Your task to perform on an android device: turn on the 24-hour format for clock Image 0: 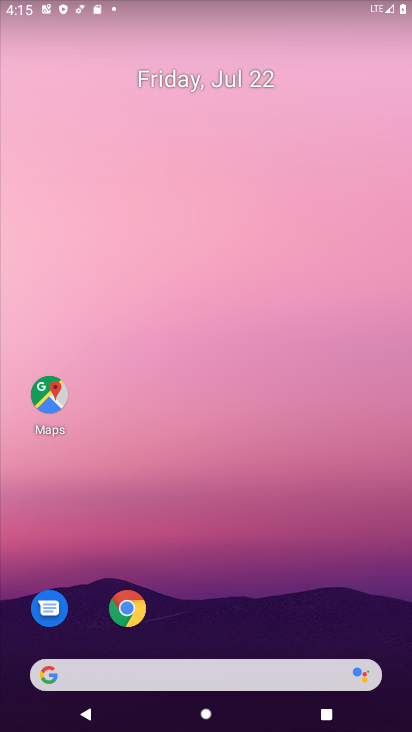
Step 0: drag from (227, 715) to (234, 356)
Your task to perform on an android device: turn on the 24-hour format for clock Image 1: 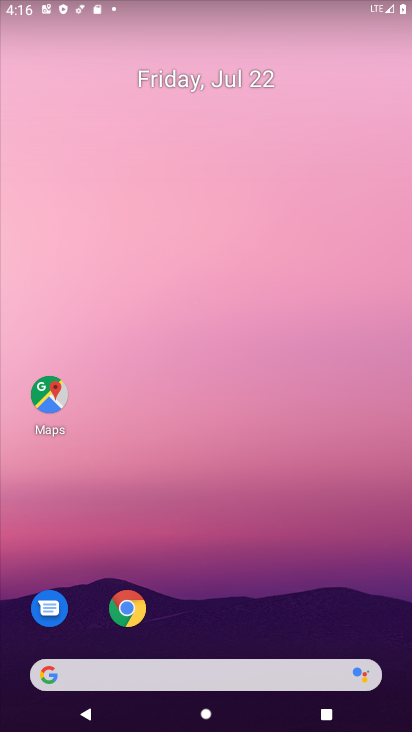
Step 1: drag from (240, 679) to (234, 47)
Your task to perform on an android device: turn on the 24-hour format for clock Image 2: 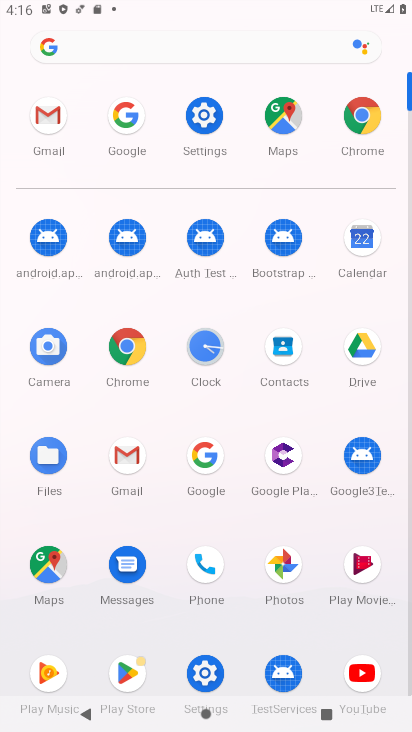
Step 2: click (204, 344)
Your task to perform on an android device: turn on the 24-hour format for clock Image 3: 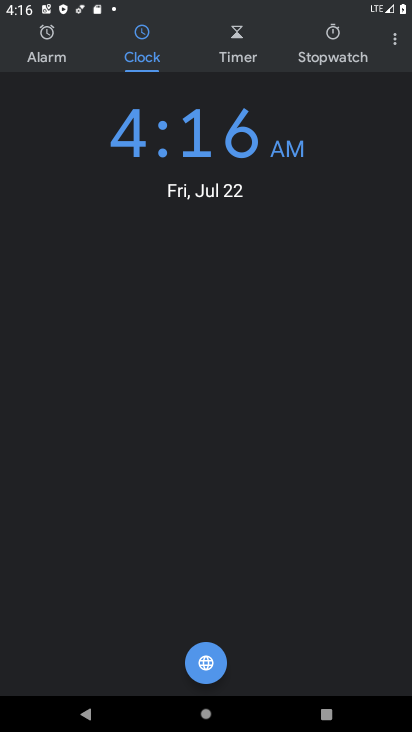
Step 3: click (395, 39)
Your task to perform on an android device: turn on the 24-hour format for clock Image 4: 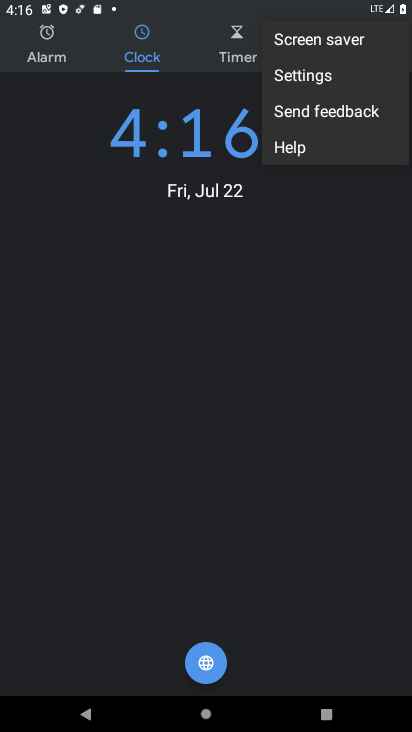
Step 4: click (293, 81)
Your task to perform on an android device: turn on the 24-hour format for clock Image 5: 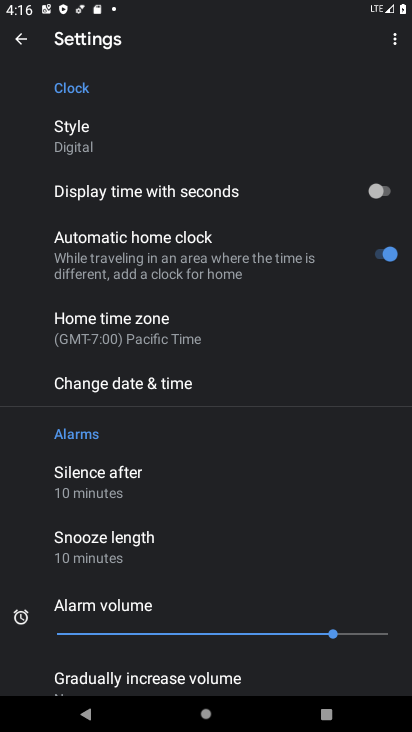
Step 5: click (139, 383)
Your task to perform on an android device: turn on the 24-hour format for clock Image 6: 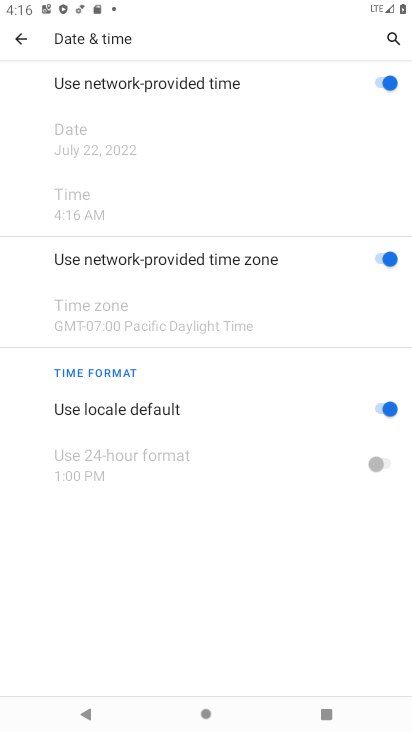
Step 6: click (379, 413)
Your task to perform on an android device: turn on the 24-hour format for clock Image 7: 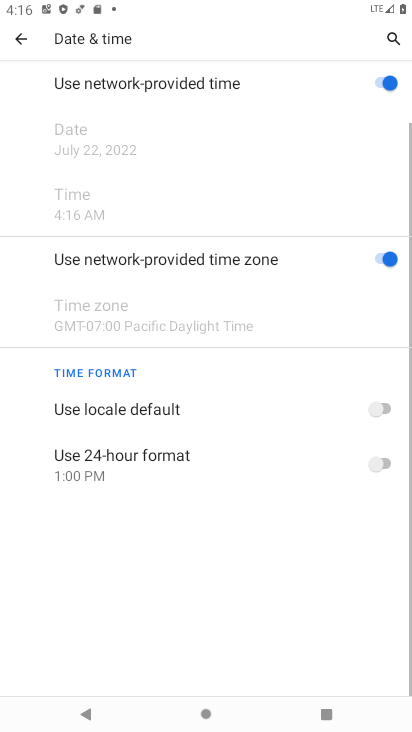
Step 7: click (383, 461)
Your task to perform on an android device: turn on the 24-hour format for clock Image 8: 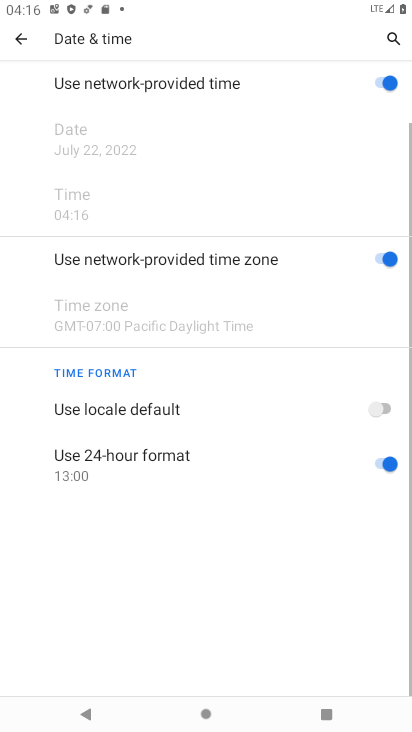
Step 8: task complete